Your task to perform on an android device: turn off airplane mode Image 0: 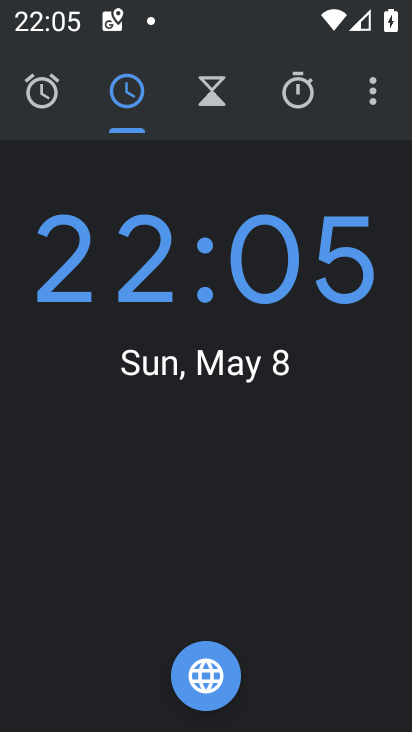
Step 0: press back button
Your task to perform on an android device: turn off airplane mode Image 1: 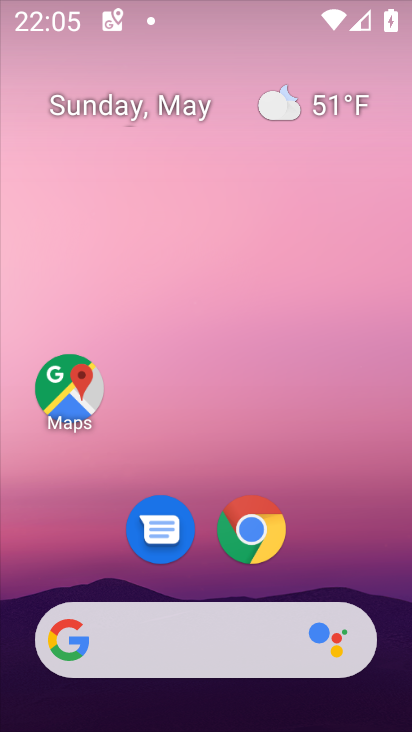
Step 1: drag from (330, 652) to (276, 38)
Your task to perform on an android device: turn off airplane mode Image 2: 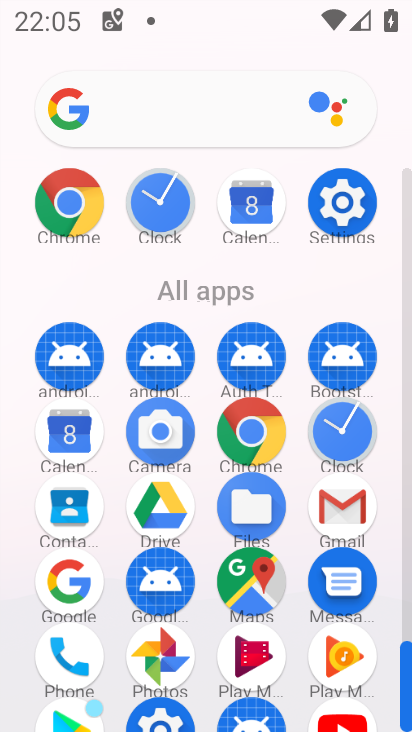
Step 2: click (359, 193)
Your task to perform on an android device: turn off airplane mode Image 3: 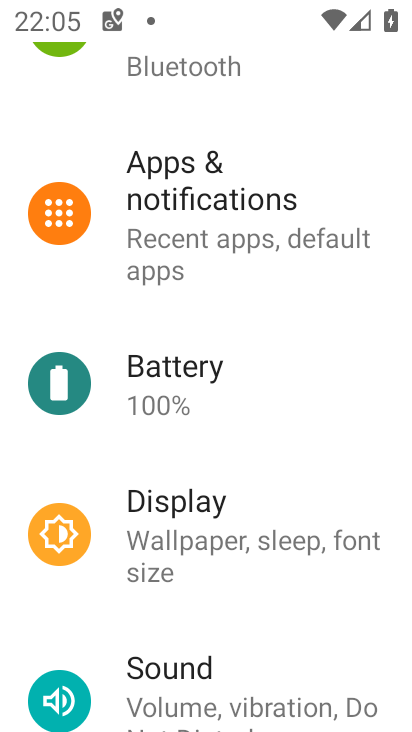
Step 3: drag from (264, 198) to (281, 726)
Your task to perform on an android device: turn off airplane mode Image 4: 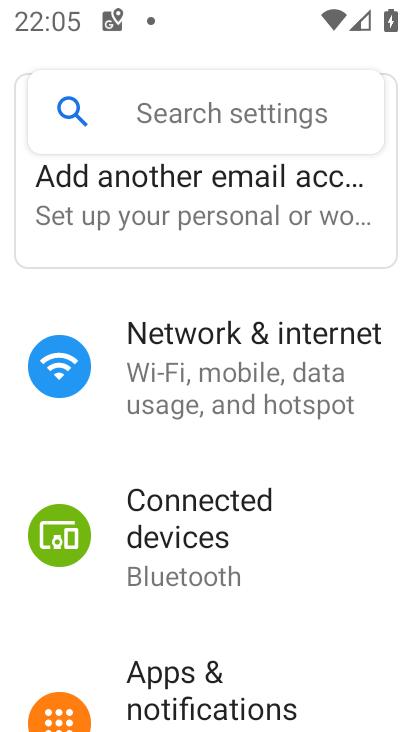
Step 4: click (269, 367)
Your task to perform on an android device: turn off airplane mode Image 5: 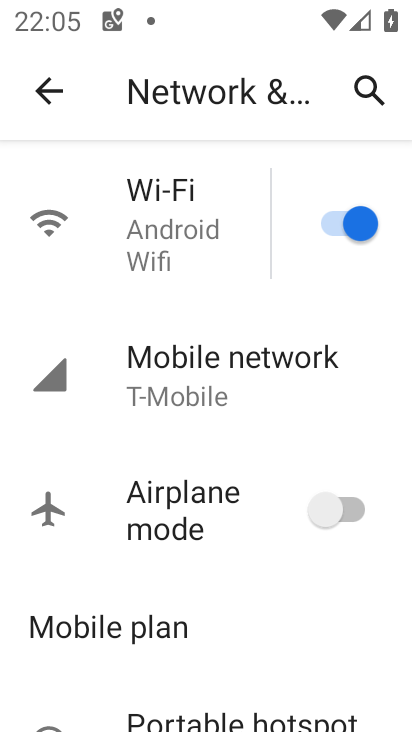
Step 5: task complete